Your task to perform on an android device: Search for "razer blade" on newegg, select the first entry, add it to the cart, then select checkout. Image 0: 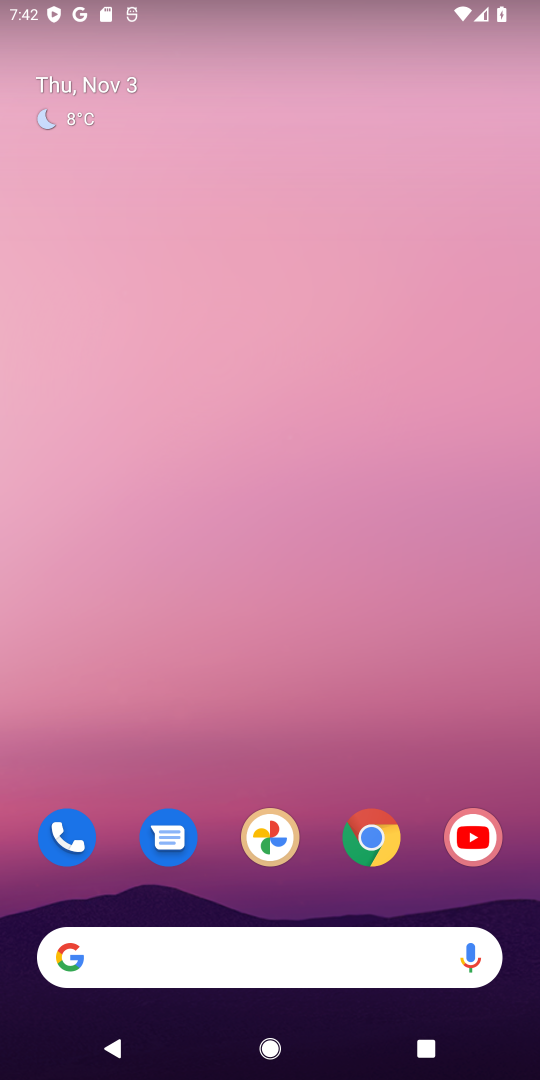
Step 0: press home button
Your task to perform on an android device: Search for "razer blade" on newegg, select the first entry, add it to the cart, then select checkout. Image 1: 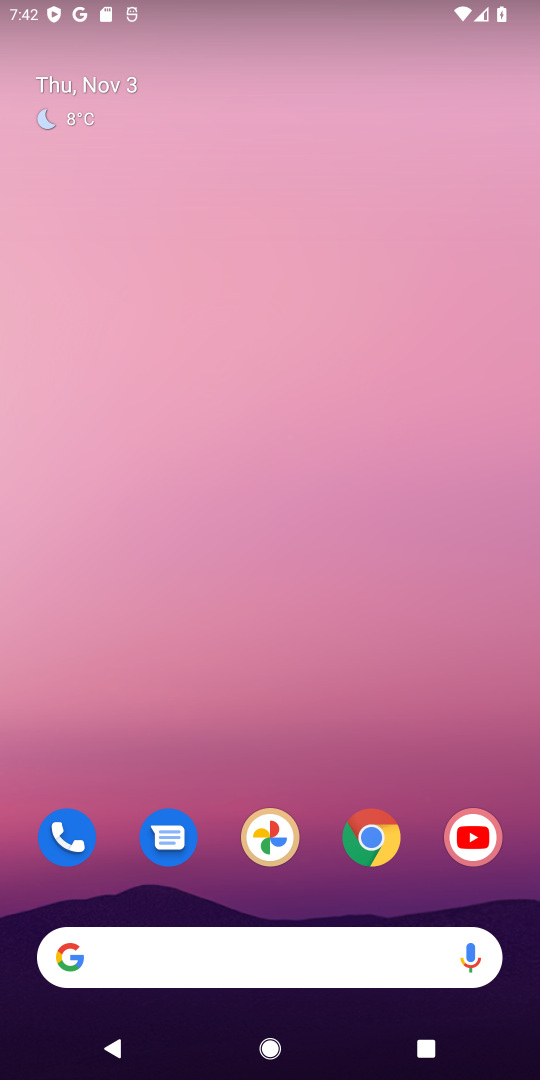
Step 1: click (374, 840)
Your task to perform on an android device: Search for "razer blade" on newegg, select the first entry, add it to the cart, then select checkout. Image 2: 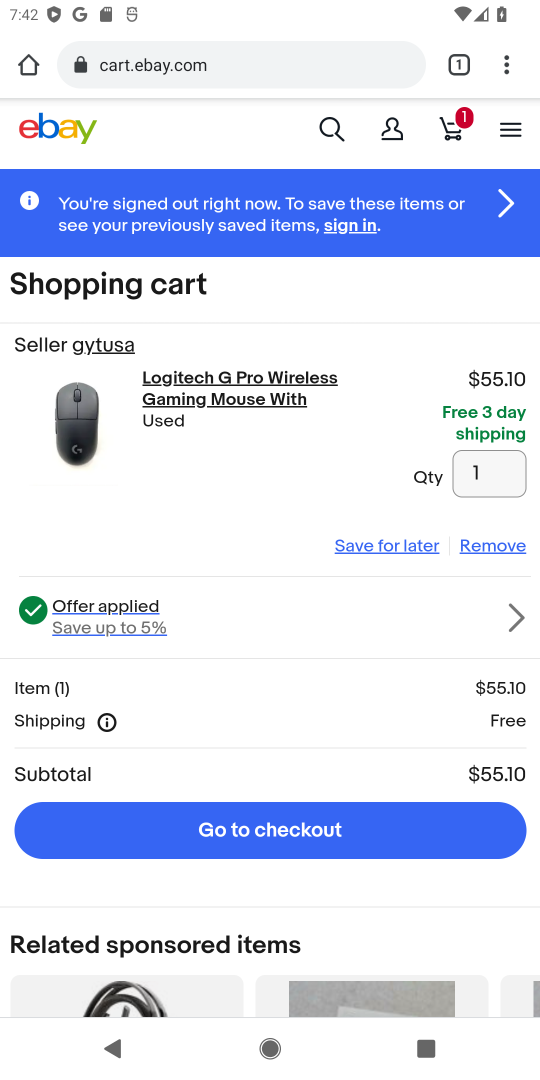
Step 2: click (203, 60)
Your task to perform on an android device: Search for "razer blade" on newegg, select the first entry, add it to the cart, then select checkout. Image 3: 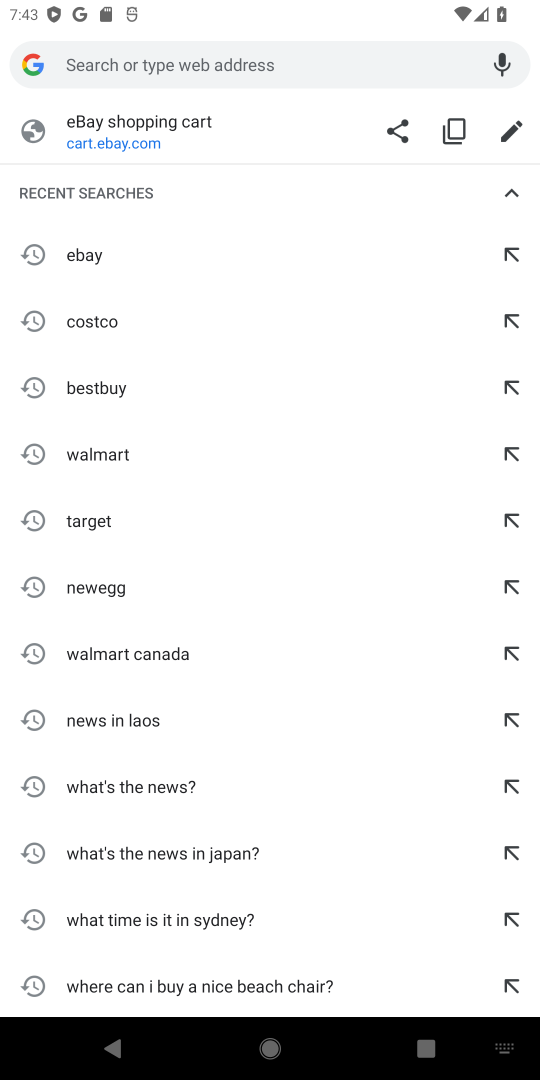
Step 3: type "newegg"
Your task to perform on an android device: Search for "razer blade" on newegg, select the first entry, add it to the cart, then select checkout. Image 4: 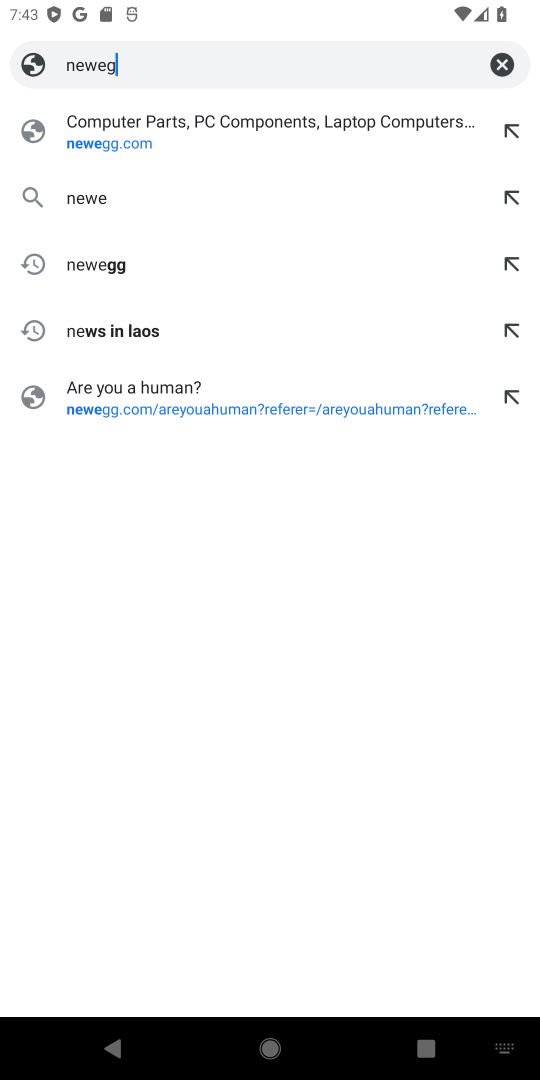
Step 4: press enter
Your task to perform on an android device: Search for "razer blade" on newegg, select the first entry, add it to the cart, then select checkout. Image 5: 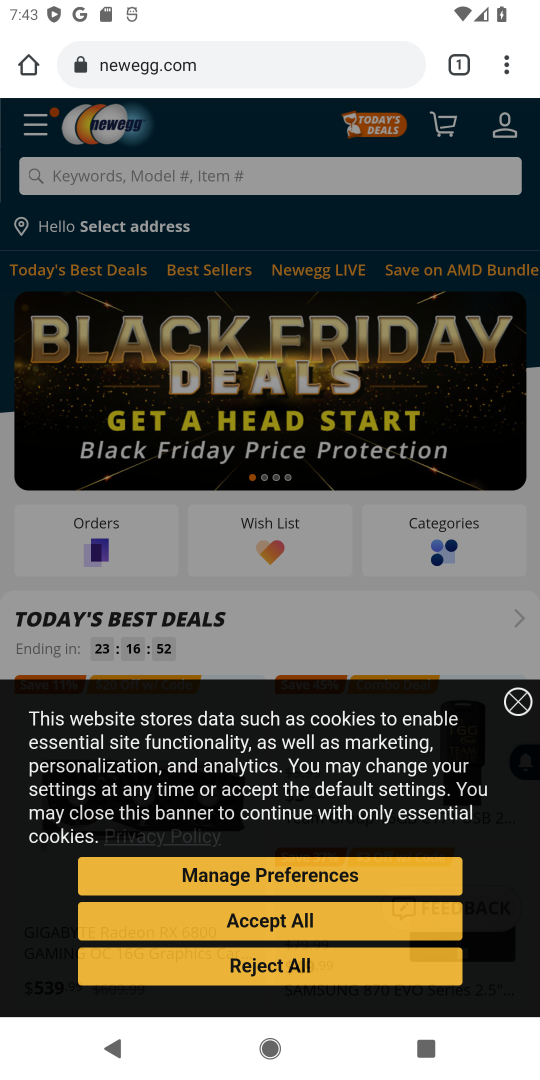
Step 5: click (143, 174)
Your task to perform on an android device: Search for "razer blade" on newegg, select the first entry, add it to the cart, then select checkout. Image 6: 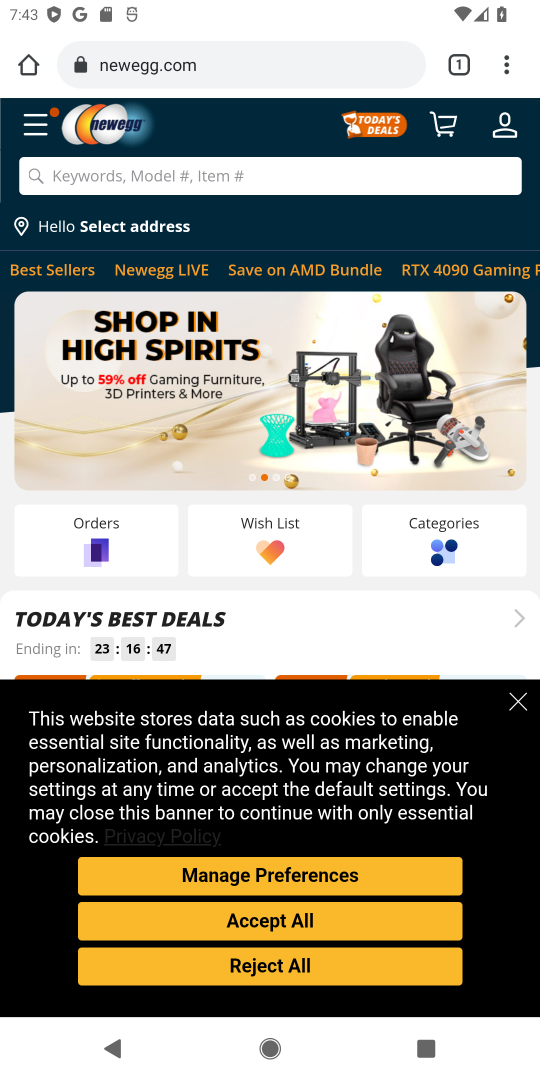
Step 6: click (331, 177)
Your task to perform on an android device: Search for "razer blade" on newegg, select the first entry, add it to the cart, then select checkout. Image 7: 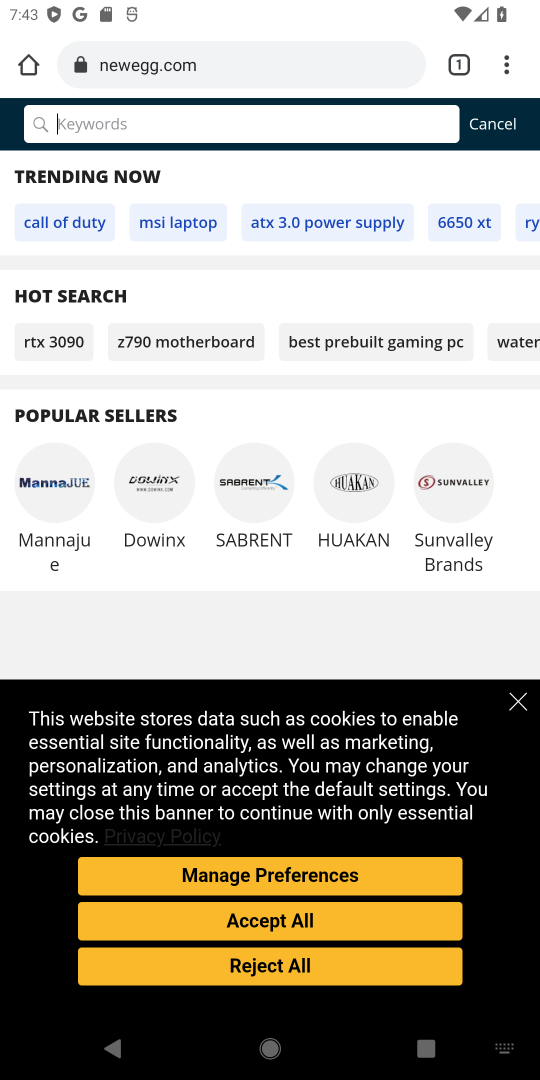
Step 7: type "razer blade"
Your task to perform on an android device: Search for "razer blade" on newegg, select the first entry, add it to the cart, then select checkout. Image 8: 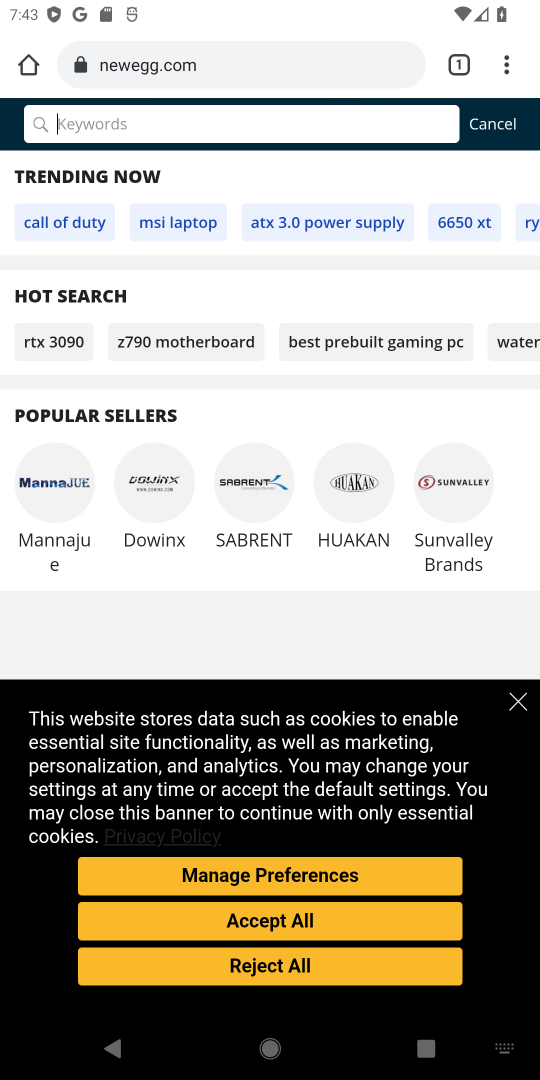
Step 8: press enter
Your task to perform on an android device: Search for "razer blade" on newegg, select the first entry, add it to the cart, then select checkout. Image 9: 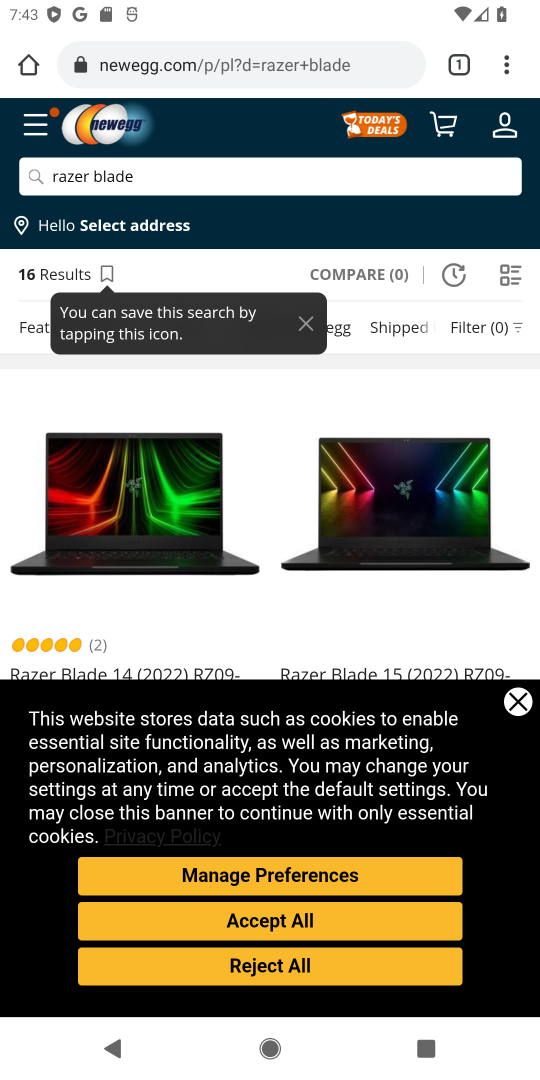
Step 9: click (521, 703)
Your task to perform on an android device: Search for "razer blade" on newegg, select the first entry, add it to the cart, then select checkout. Image 10: 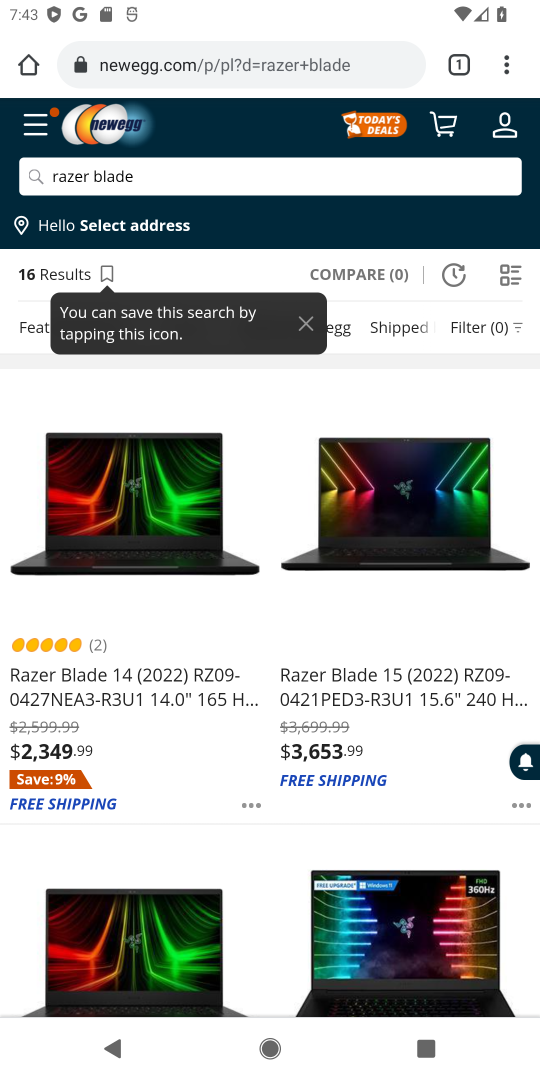
Step 10: click (89, 670)
Your task to perform on an android device: Search for "razer blade" on newegg, select the first entry, add it to the cart, then select checkout. Image 11: 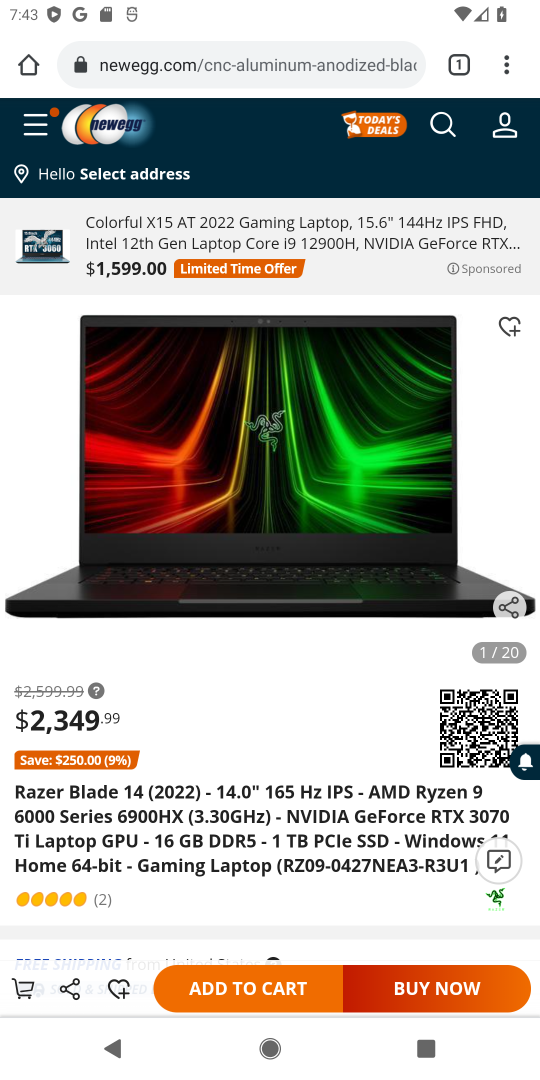
Step 11: click (252, 986)
Your task to perform on an android device: Search for "razer blade" on newegg, select the first entry, add it to the cart, then select checkout. Image 12: 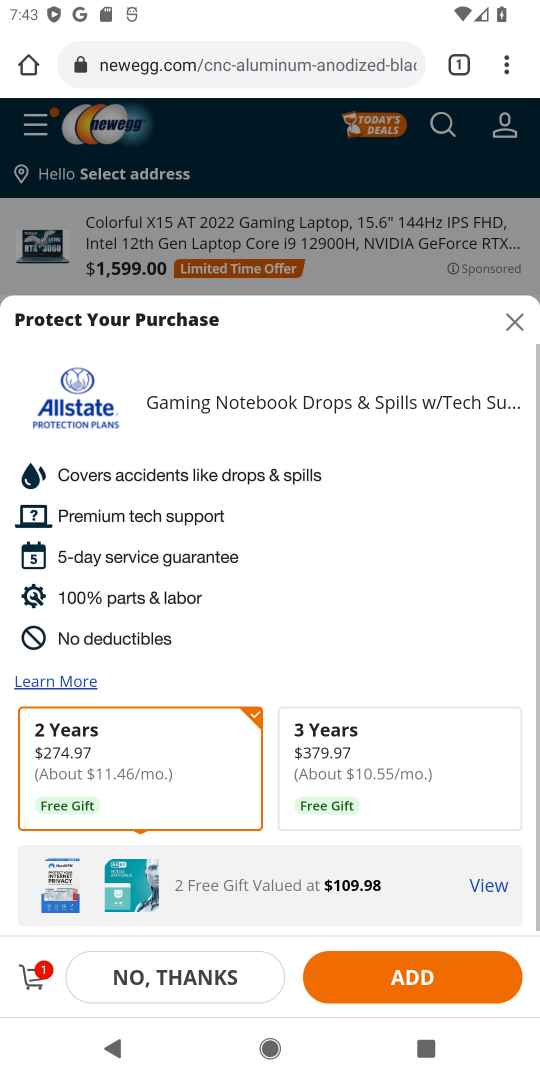
Step 12: click (193, 971)
Your task to perform on an android device: Search for "razer blade" on newegg, select the first entry, add it to the cart, then select checkout. Image 13: 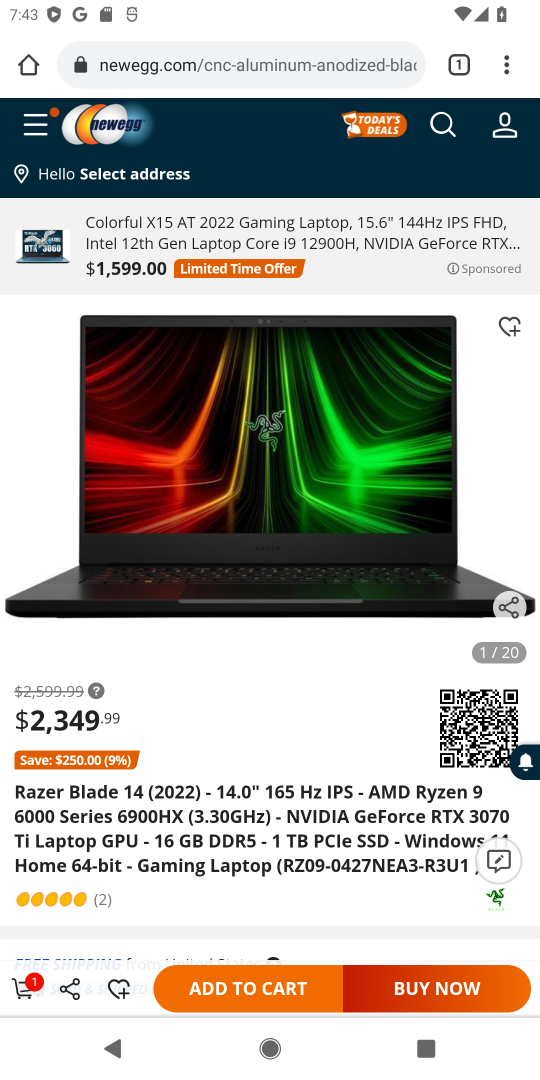
Step 13: click (23, 988)
Your task to perform on an android device: Search for "razer blade" on newegg, select the first entry, add it to the cart, then select checkout. Image 14: 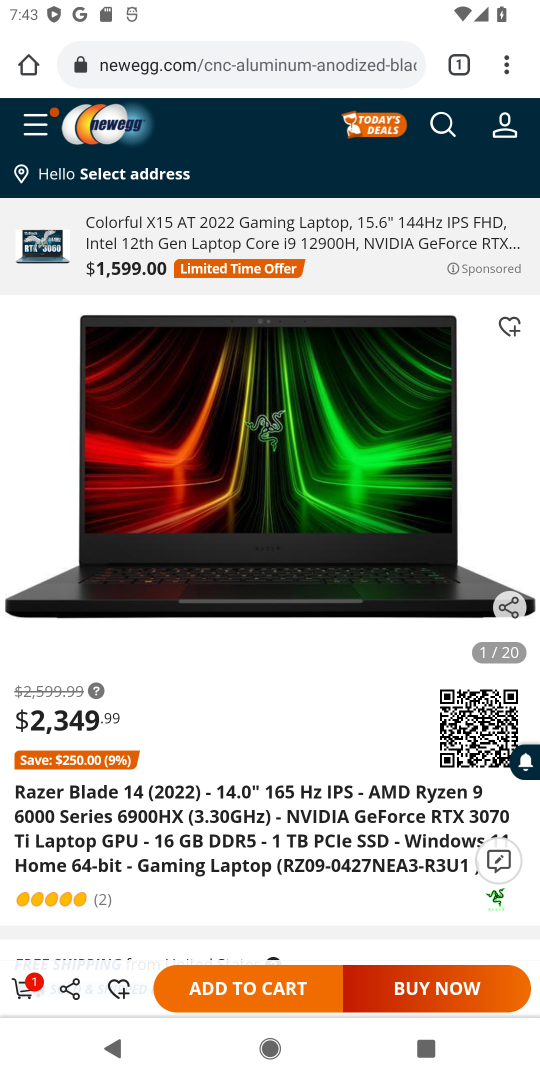
Step 14: click (22, 978)
Your task to perform on an android device: Search for "razer blade" on newegg, select the first entry, add it to the cart, then select checkout. Image 15: 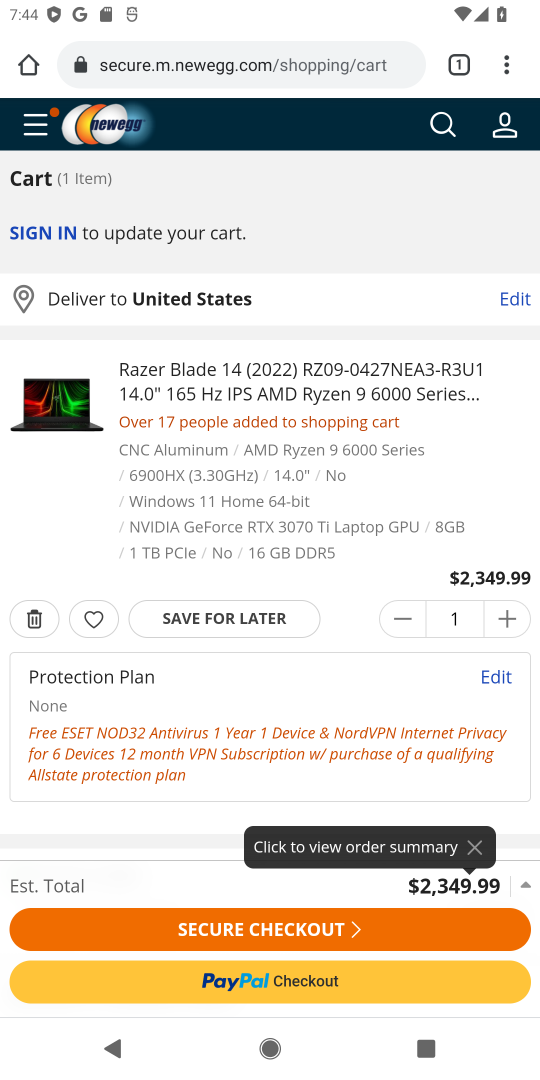
Step 15: click (319, 927)
Your task to perform on an android device: Search for "razer blade" on newegg, select the first entry, add it to the cart, then select checkout. Image 16: 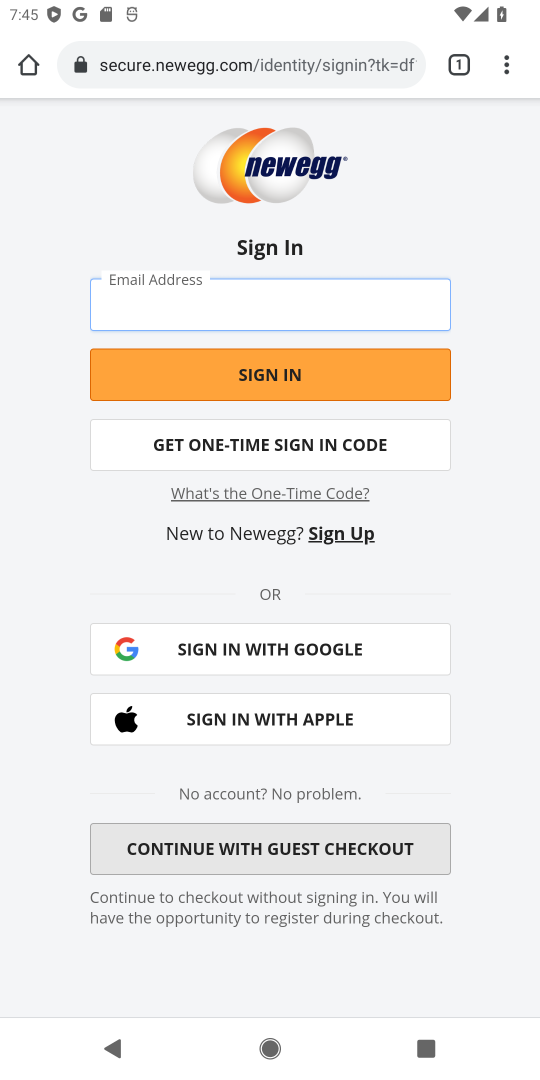
Step 16: task complete